Your task to perform on an android device: Open Amazon Image 0: 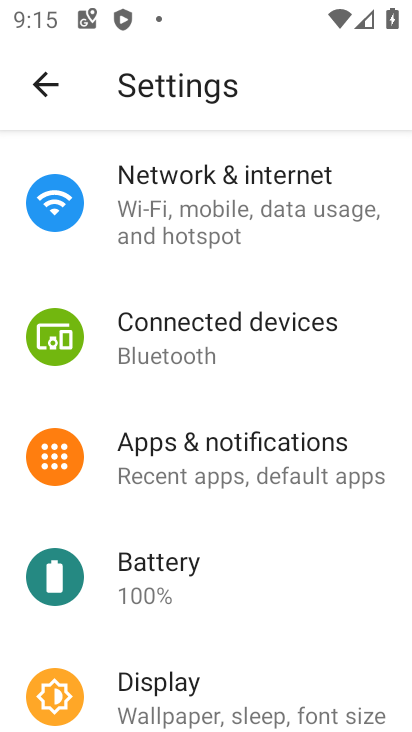
Step 0: press home button
Your task to perform on an android device: Open Amazon Image 1: 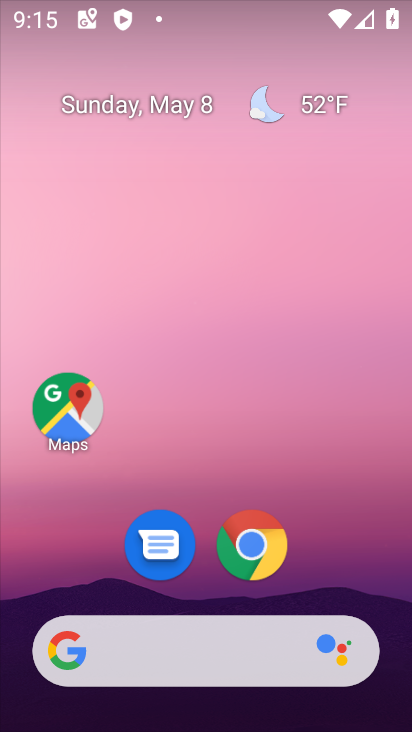
Step 1: drag from (226, 604) to (159, 68)
Your task to perform on an android device: Open Amazon Image 2: 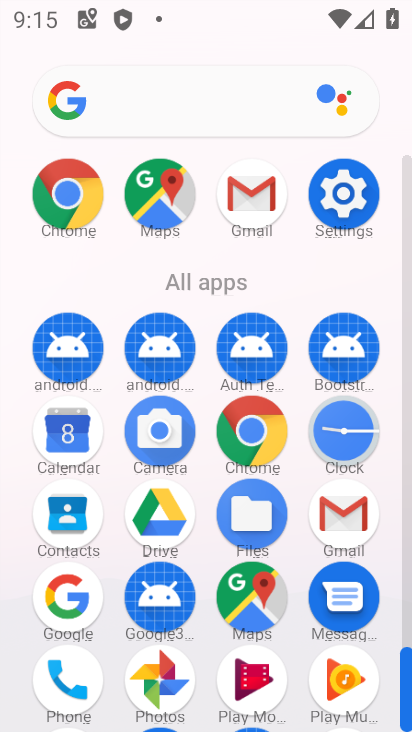
Step 2: click (261, 439)
Your task to perform on an android device: Open Amazon Image 3: 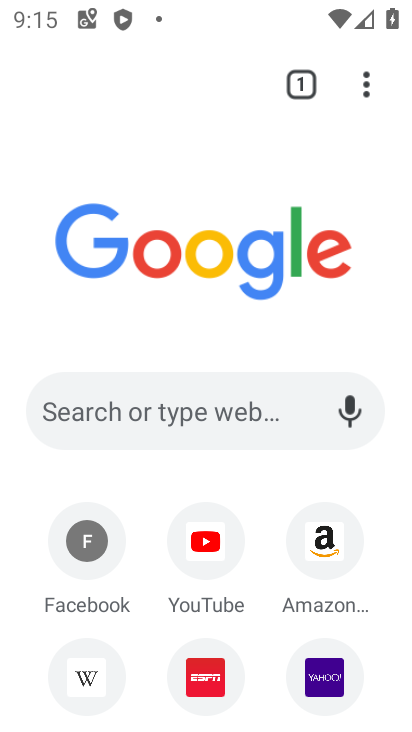
Step 3: click (317, 541)
Your task to perform on an android device: Open Amazon Image 4: 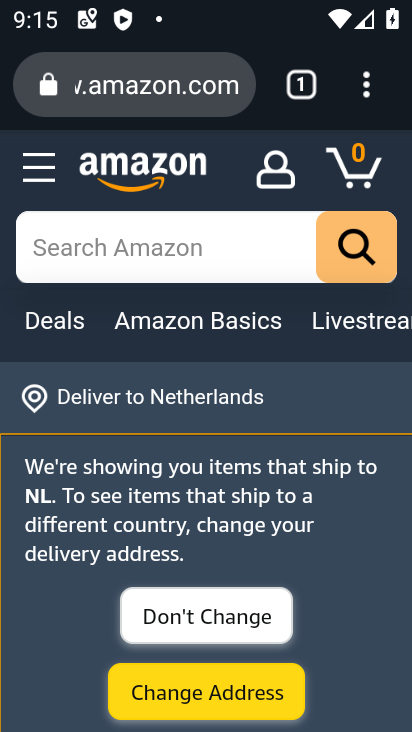
Step 4: task complete